Your task to perform on an android device: turn on bluetooth scan Image 0: 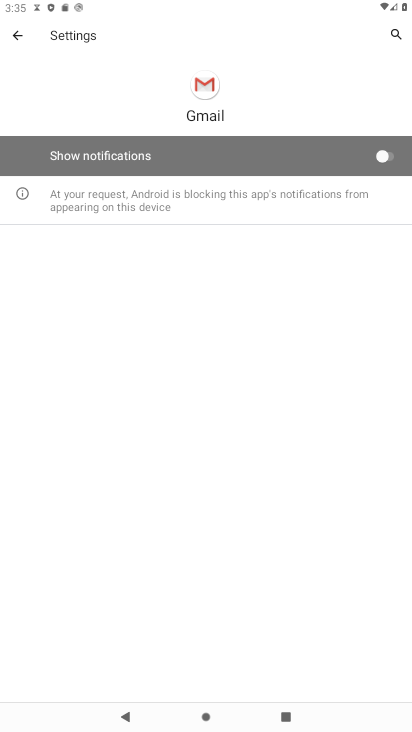
Step 0: press home button
Your task to perform on an android device: turn on bluetooth scan Image 1: 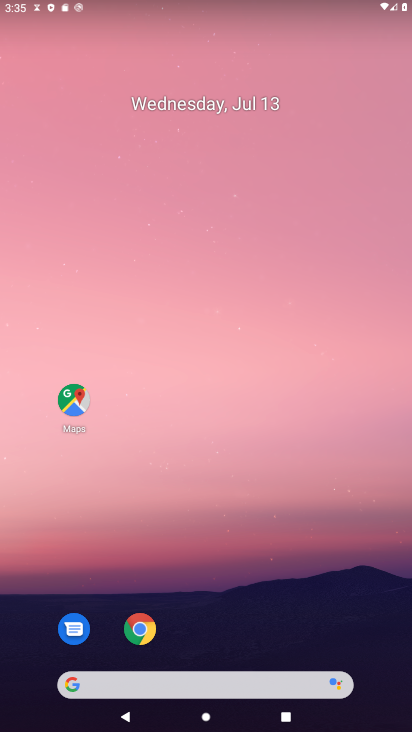
Step 1: drag from (269, 506) to (334, 98)
Your task to perform on an android device: turn on bluetooth scan Image 2: 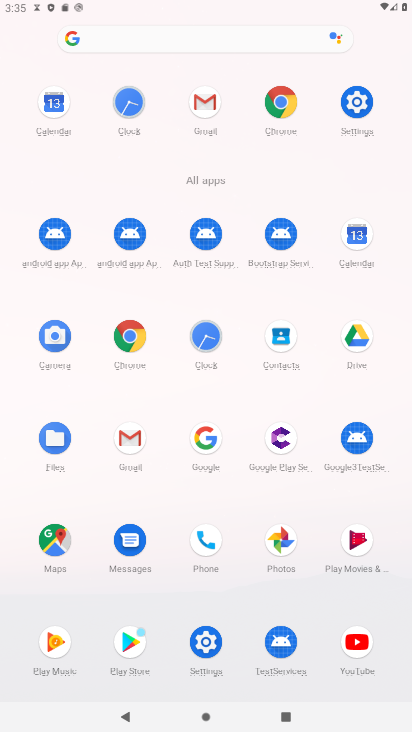
Step 2: click (356, 105)
Your task to perform on an android device: turn on bluetooth scan Image 3: 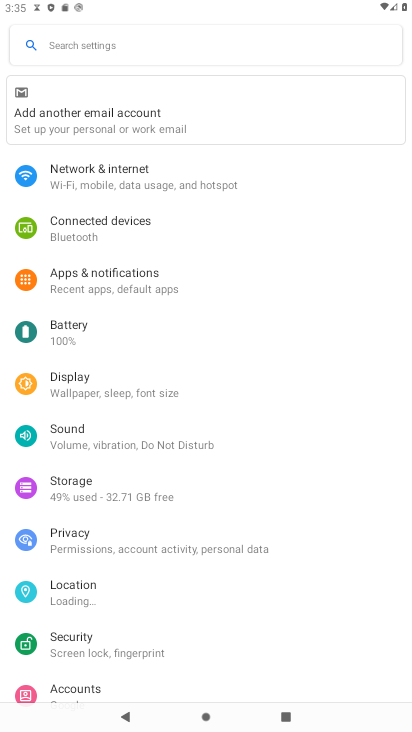
Step 3: click (113, 581)
Your task to perform on an android device: turn on bluetooth scan Image 4: 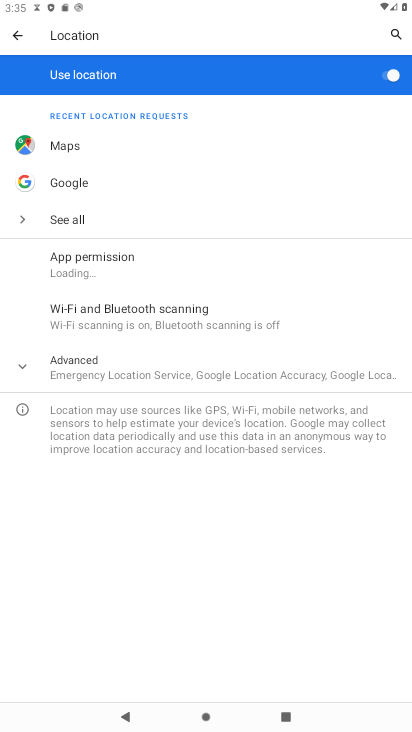
Step 4: click (120, 313)
Your task to perform on an android device: turn on bluetooth scan Image 5: 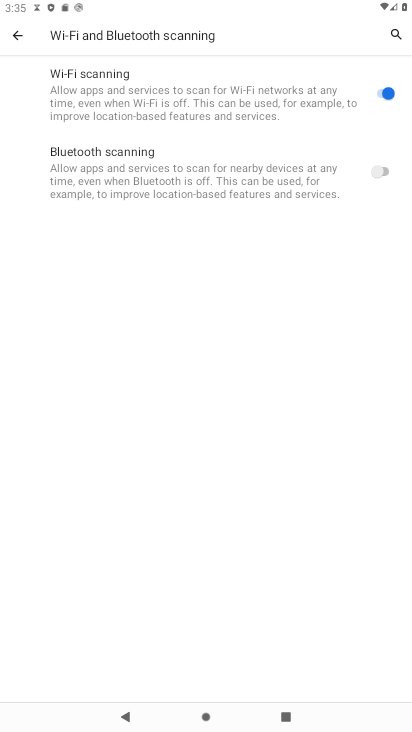
Step 5: click (383, 163)
Your task to perform on an android device: turn on bluetooth scan Image 6: 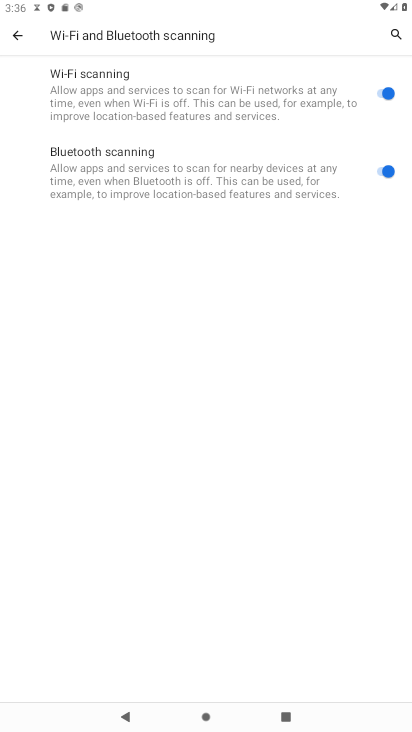
Step 6: task complete